Your task to perform on an android device: move an email to a new category in the gmail app Image 0: 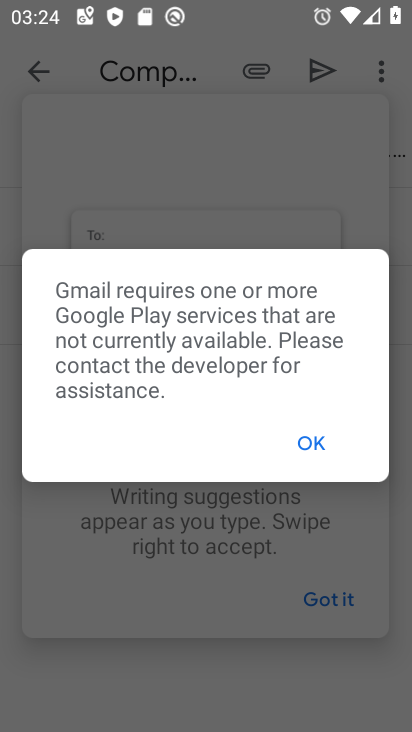
Step 0: press home button
Your task to perform on an android device: move an email to a new category in the gmail app Image 1: 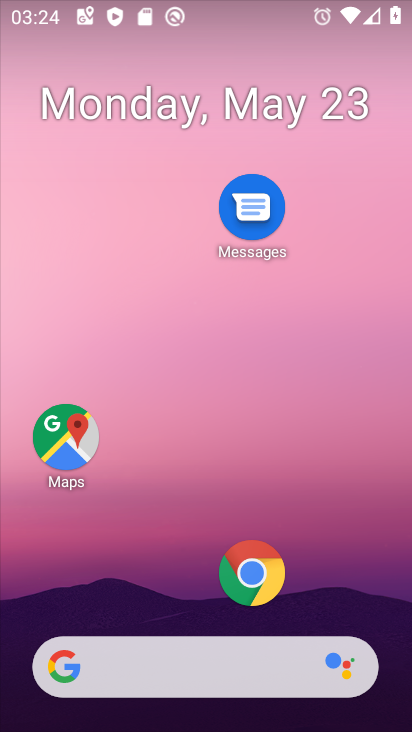
Step 1: drag from (325, 649) to (307, 70)
Your task to perform on an android device: move an email to a new category in the gmail app Image 2: 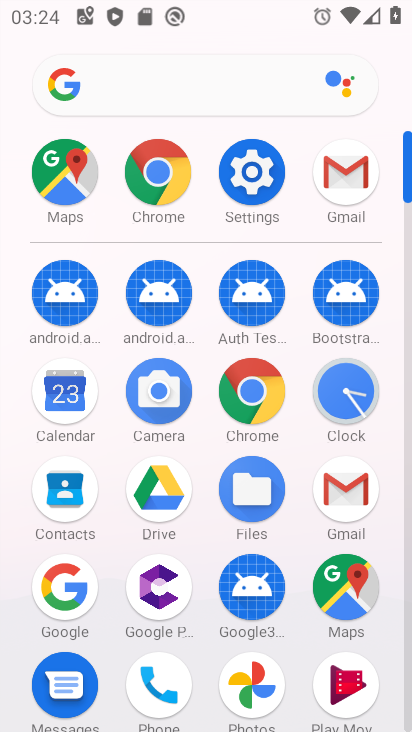
Step 2: click (359, 503)
Your task to perform on an android device: move an email to a new category in the gmail app Image 3: 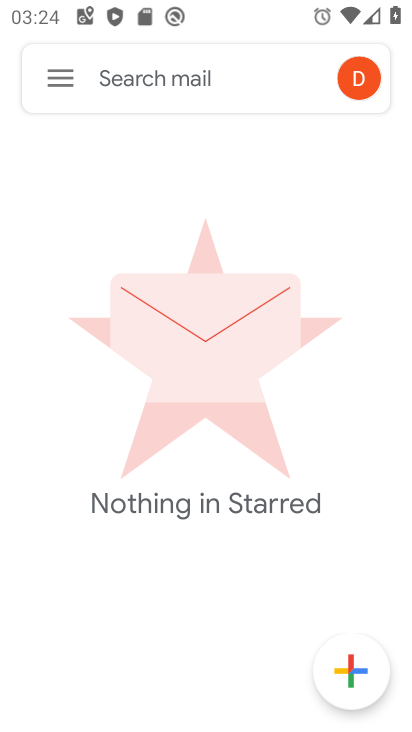
Step 3: click (55, 76)
Your task to perform on an android device: move an email to a new category in the gmail app Image 4: 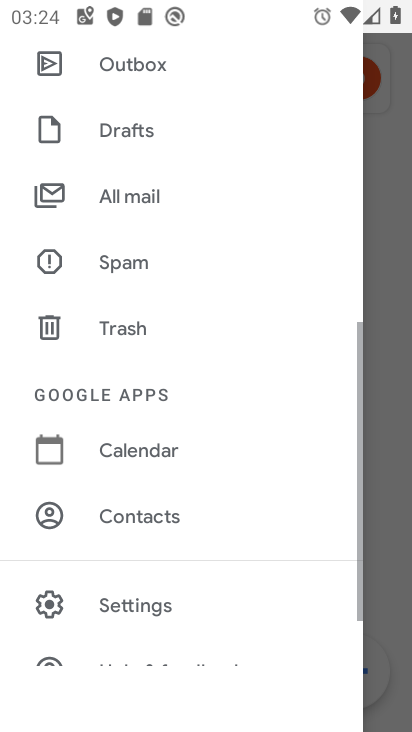
Step 4: task complete